Your task to perform on an android device: Go to Reddit.com Image 0: 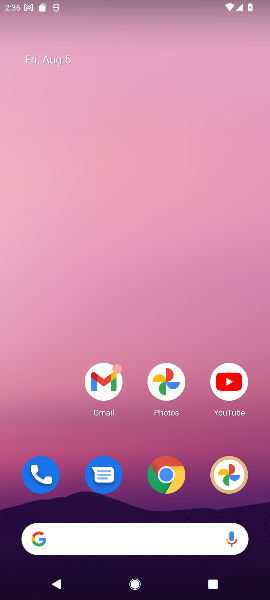
Step 0: click (161, 473)
Your task to perform on an android device: Go to Reddit.com Image 1: 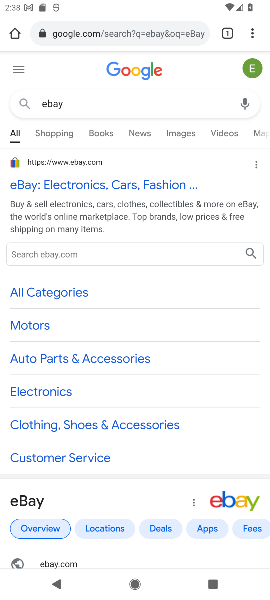
Step 1: click (163, 30)
Your task to perform on an android device: Go to Reddit.com Image 2: 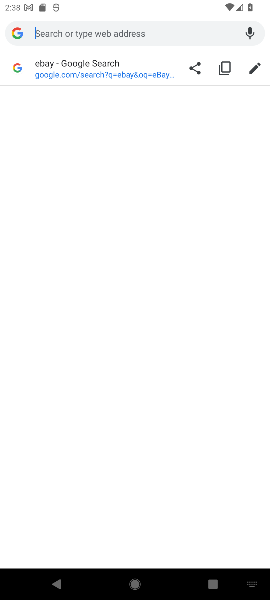
Step 2: type "Reddit.com"
Your task to perform on an android device: Go to Reddit.com Image 3: 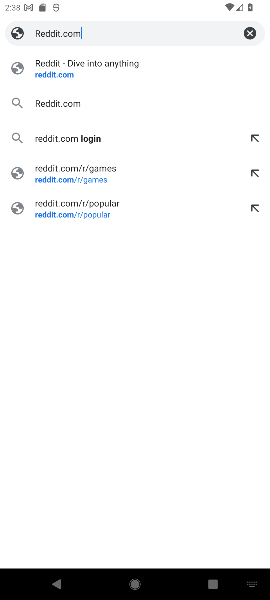
Step 3: click (69, 101)
Your task to perform on an android device: Go to Reddit.com Image 4: 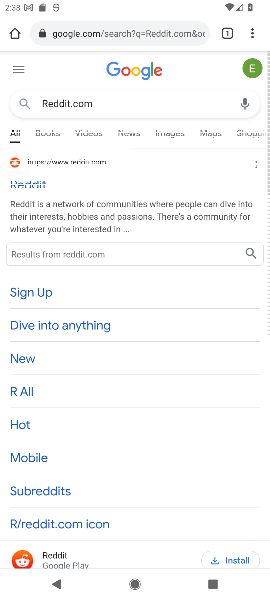
Step 4: task complete